Your task to perform on an android device: Add razer blade to the cart on walmart.com, then select checkout. Image 0: 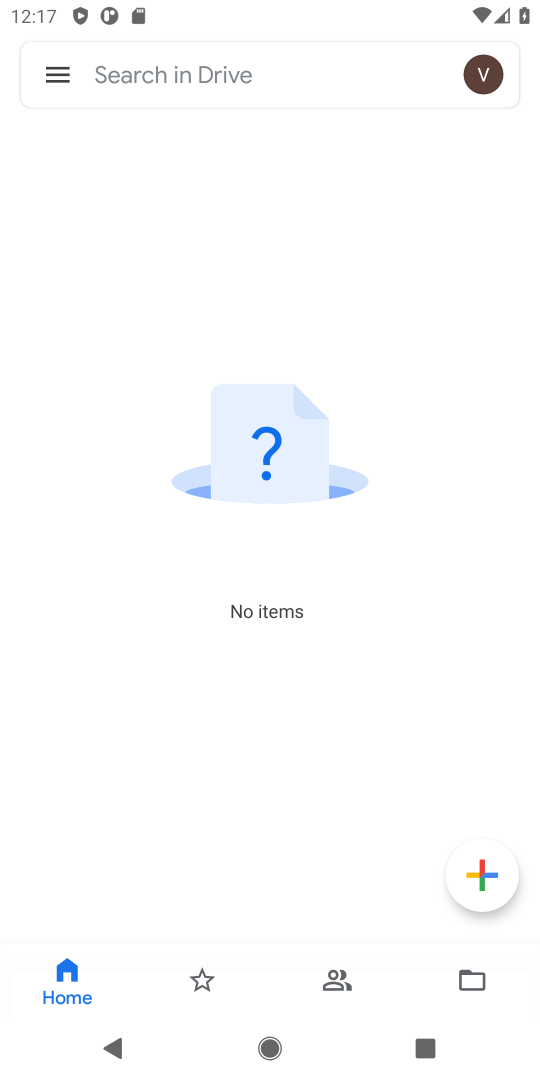
Step 0: press home button
Your task to perform on an android device: Add razer blade to the cart on walmart.com, then select checkout. Image 1: 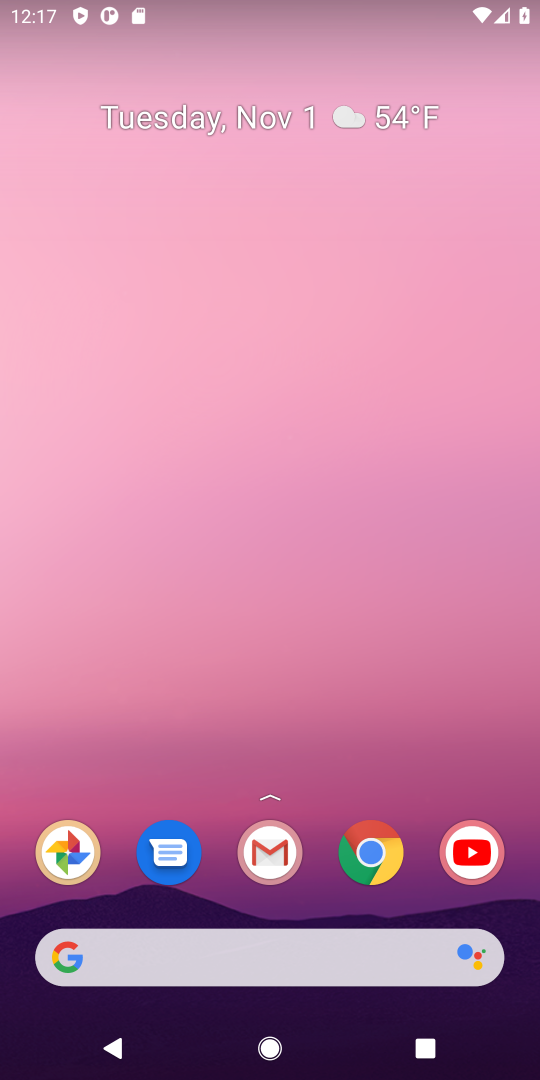
Step 1: click (369, 865)
Your task to perform on an android device: Add razer blade to the cart on walmart.com, then select checkout. Image 2: 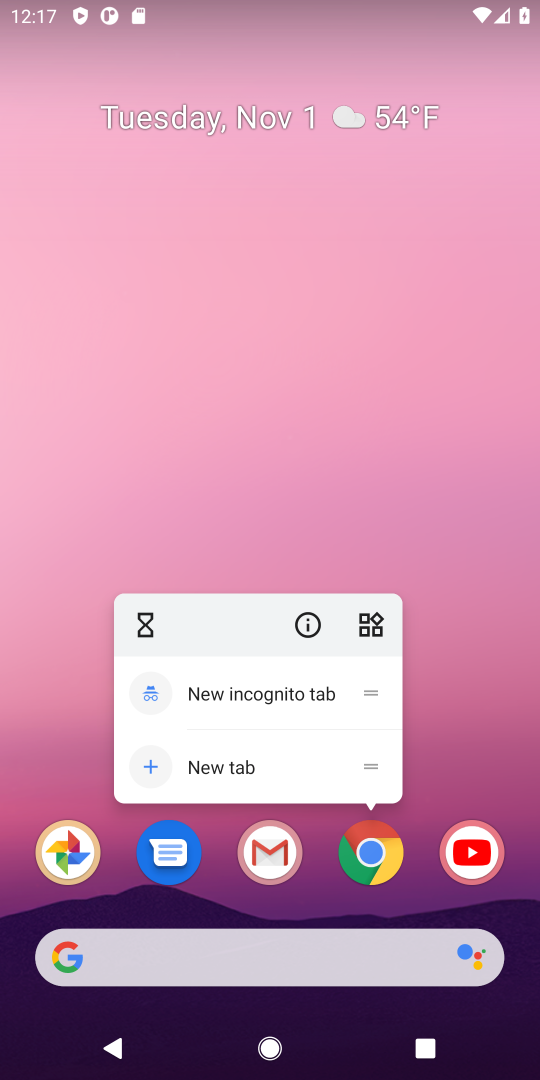
Step 2: click (386, 870)
Your task to perform on an android device: Add razer blade to the cart on walmart.com, then select checkout. Image 3: 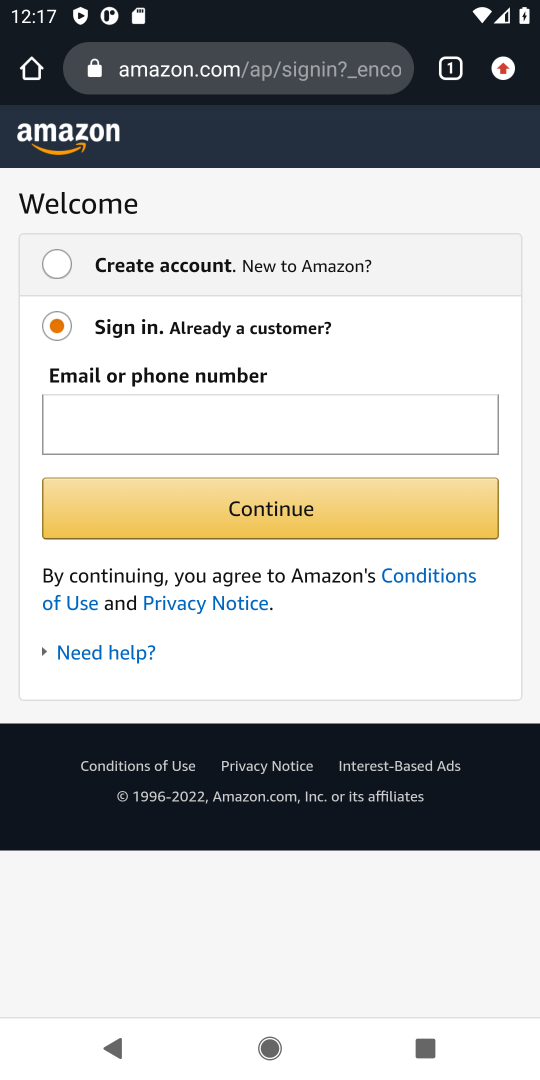
Step 3: click (193, 73)
Your task to perform on an android device: Add razer blade to the cart on walmart.com, then select checkout. Image 4: 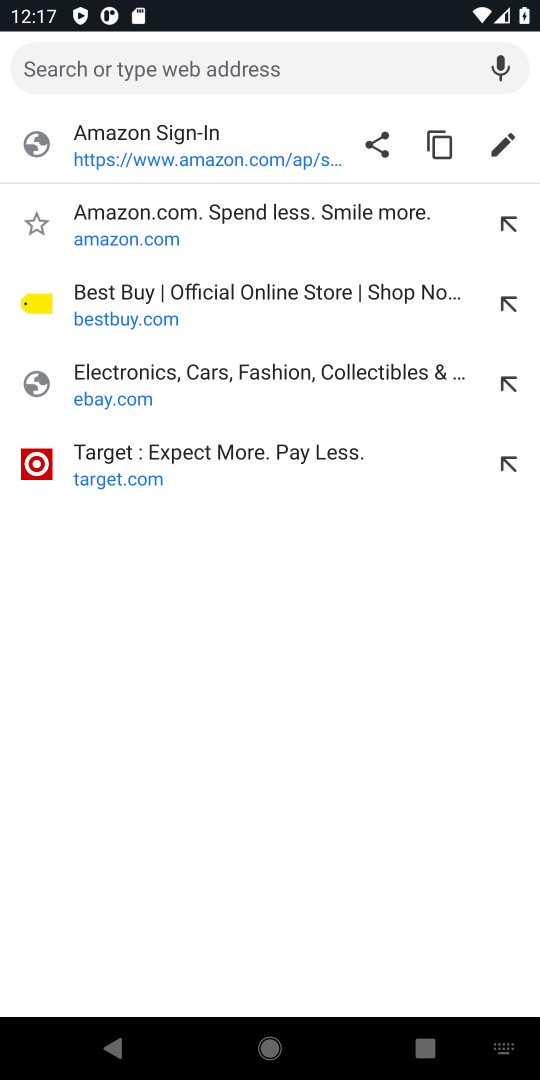
Step 4: type "walmart.com"
Your task to perform on an android device: Add razer blade to the cart on walmart.com, then select checkout. Image 5: 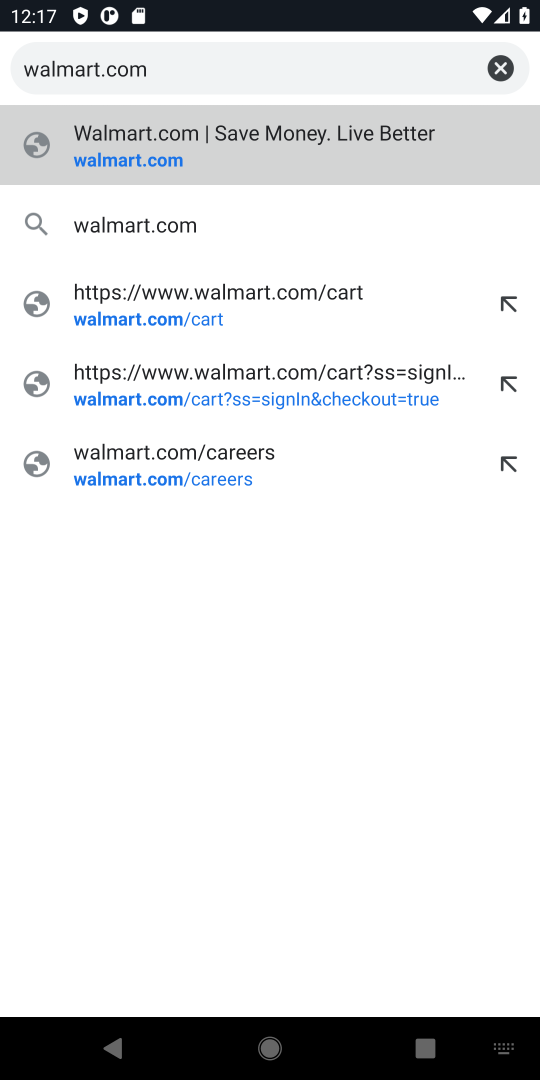
Step 5: type ""
Your task to perform on an android device: Add razer blade to the cart on walmart.com, then select checkout. Image 6: 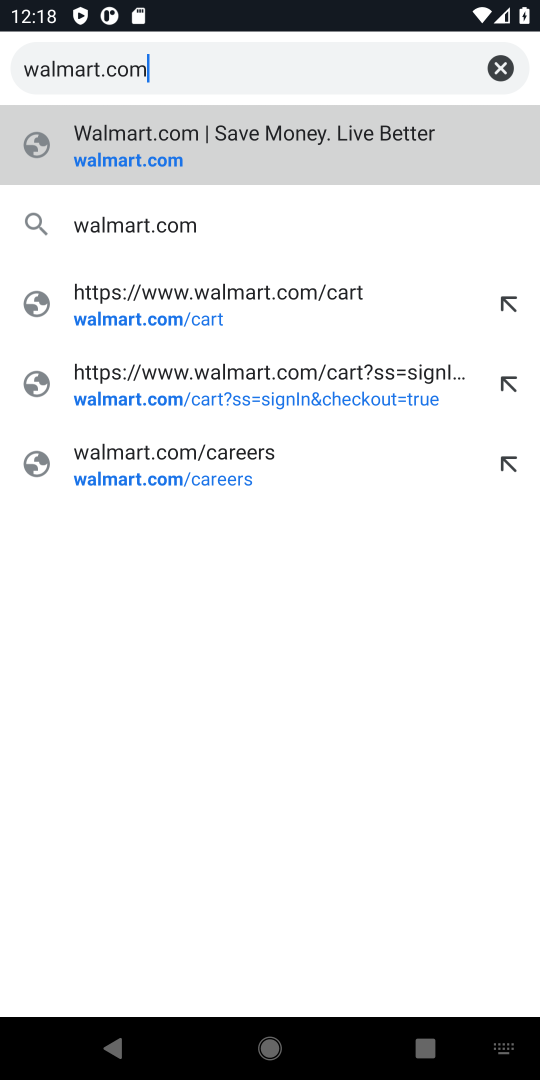
Step 6: press enter
Your task to perform on an android device: Add razer blade to the cart on walmart.com, then select checkout. Image 7: 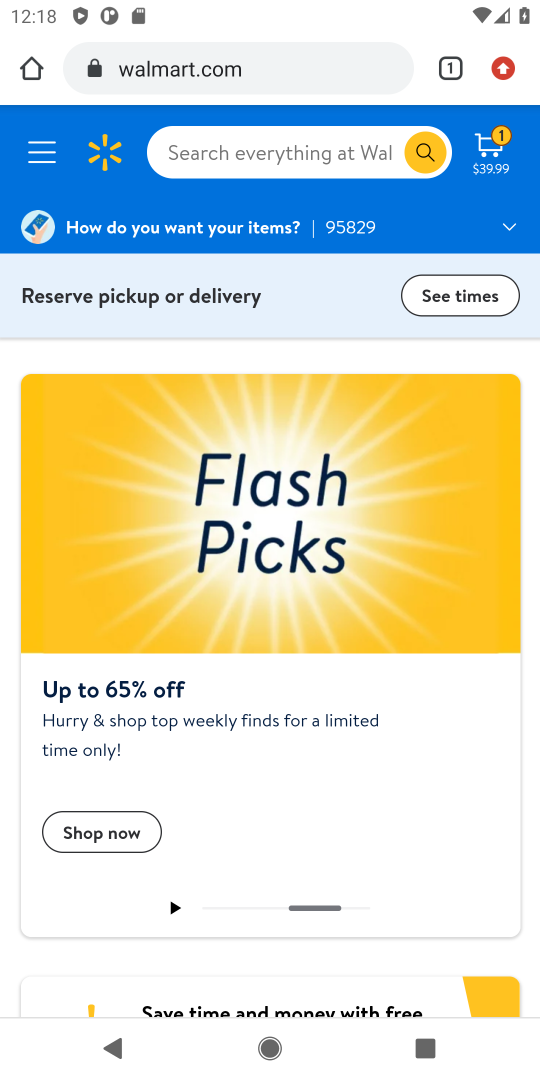
Step 7: click (264, 154)
Your task to perform on an android device: Add razer blade to the cart on walmart.com, then select checkout. Image 8: 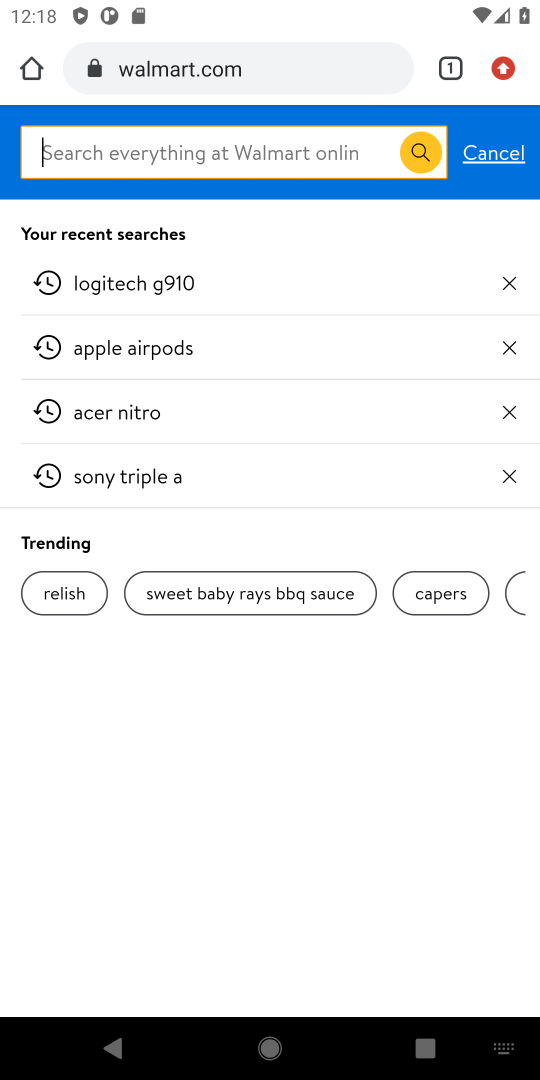
Step 8: type "razer blade"
Your task to perform on an android device: Add razer blade to the cart on walmart.com, then select checkout. Image 9: 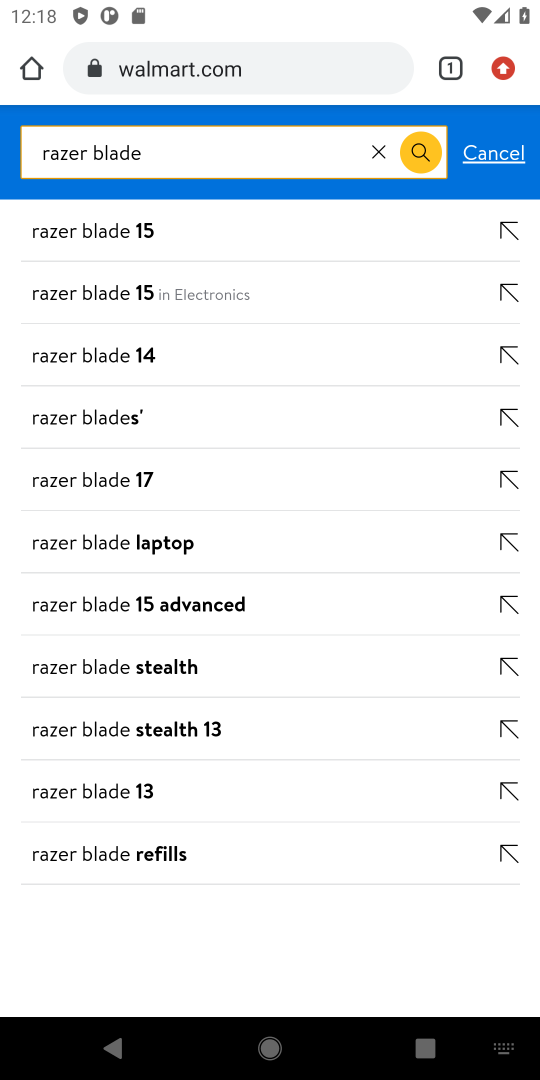
Step 9: press enter
Your task to perform on an android device: Add razer blade to the cart on walmart.com, then select checkout. Image 10: 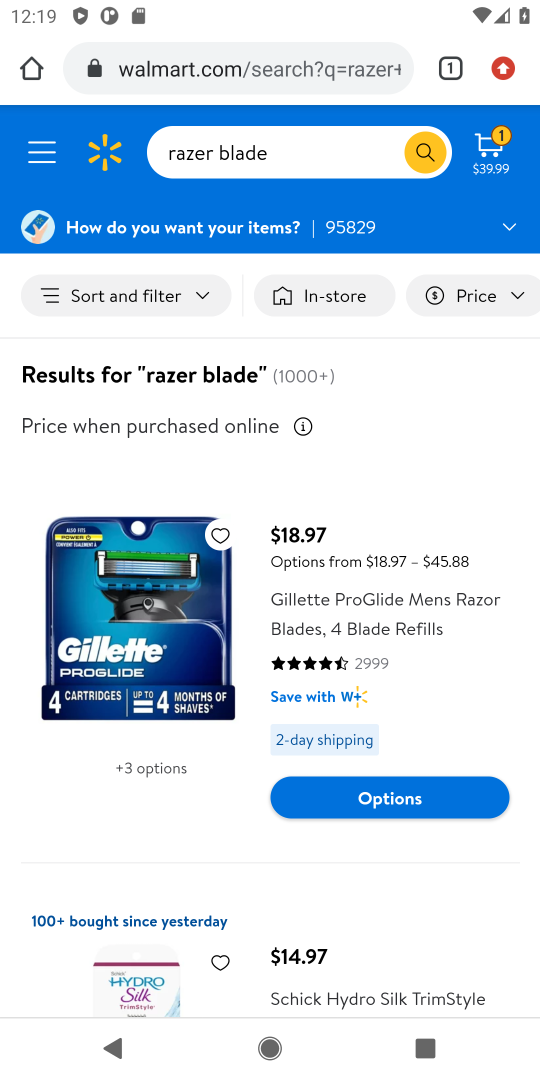
Step 10: click (455, 804)
Your task to perform on an android device: Add razer blade to the cart on walmart.com, then select checkout. Image 11: 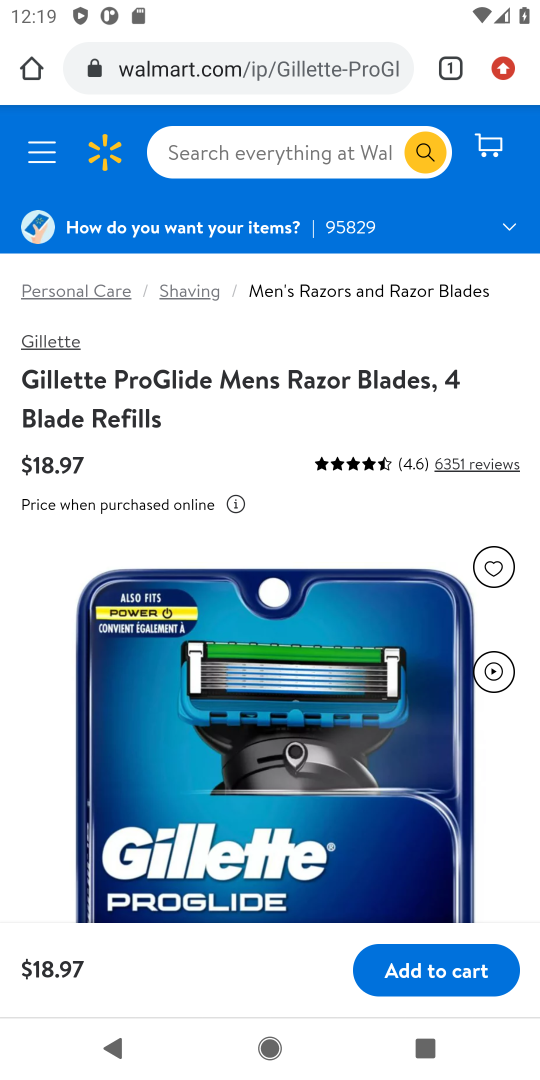
Step 11: click (405, 971)
Your task to perform on an android device: Add razer blade to the cart on walmart.com, then select checkout. Image 12: 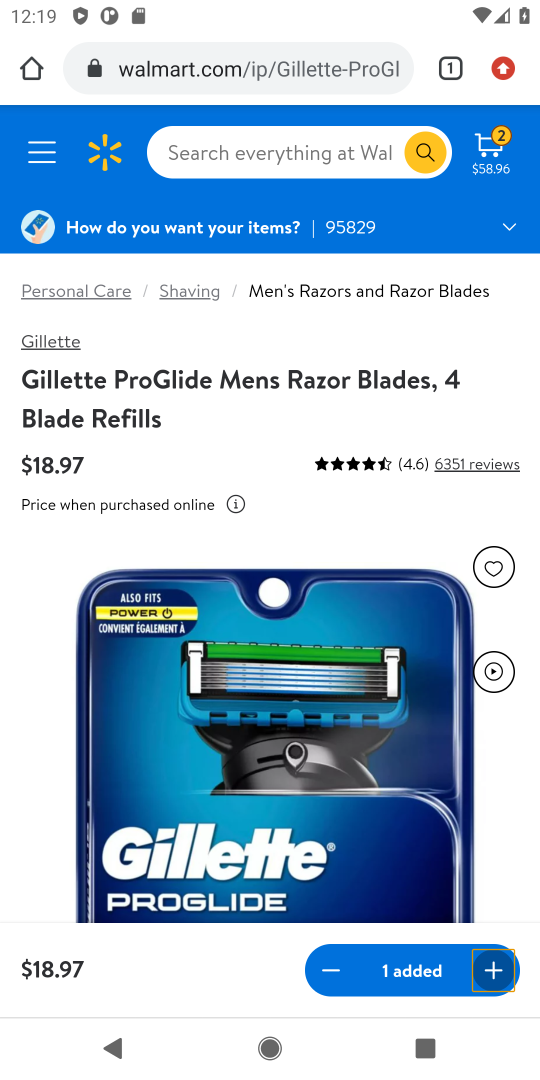
Step 12: click (483, 148)
Your task to perform on an android device: Add razer blade to the cart on walmart.com, then select checkout. Image 13: 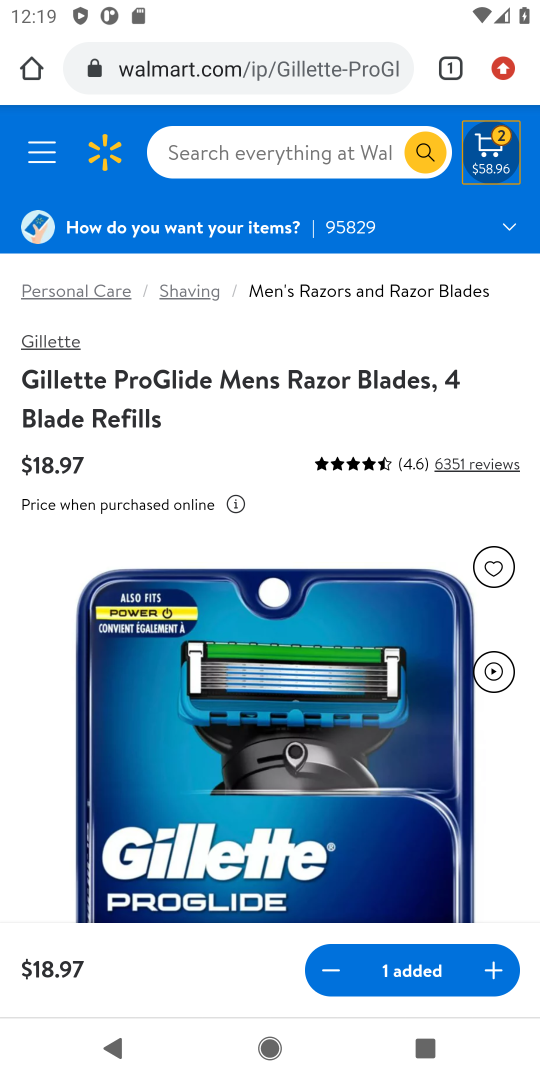
Step 13: click (485, 153)
Your task to perform on an android device: Add razer blade to the cart on walmart.com, then select checkout. Image 14: 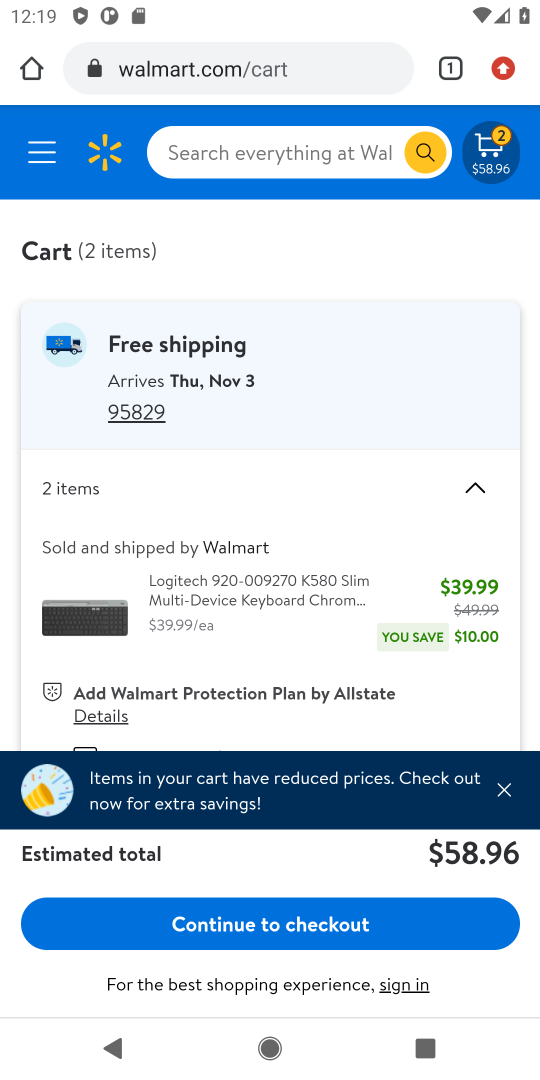
Step 14: click (260, 928)
Your task to perform on an android device: Add razer blade to the cart on walmart.com, then select checkout. Image 15: 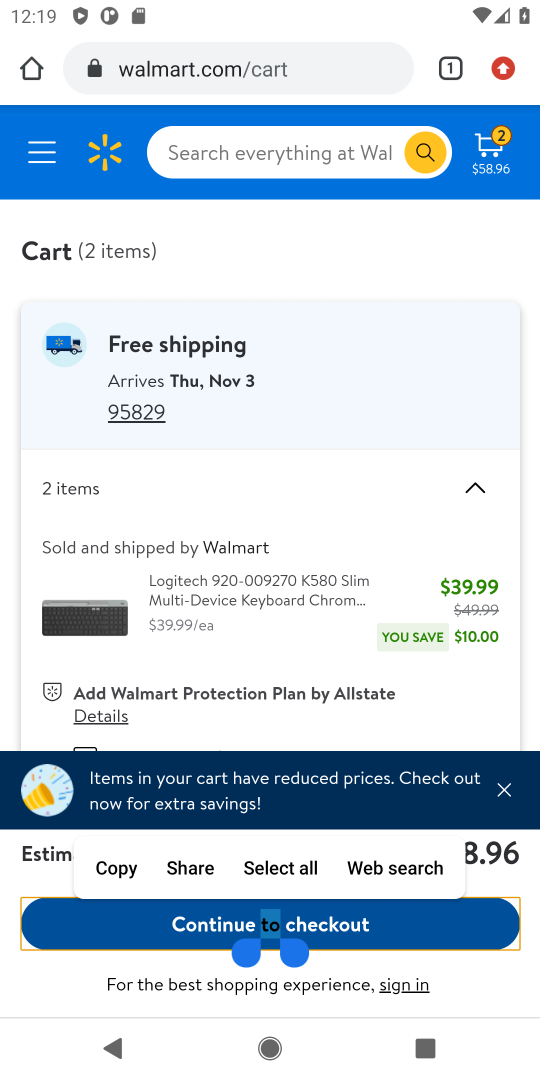
Step 15: click (363, 935)
Your task to perform on an android device: Add razer blade to the cart on walmart.com, then select checkout. Image 16: 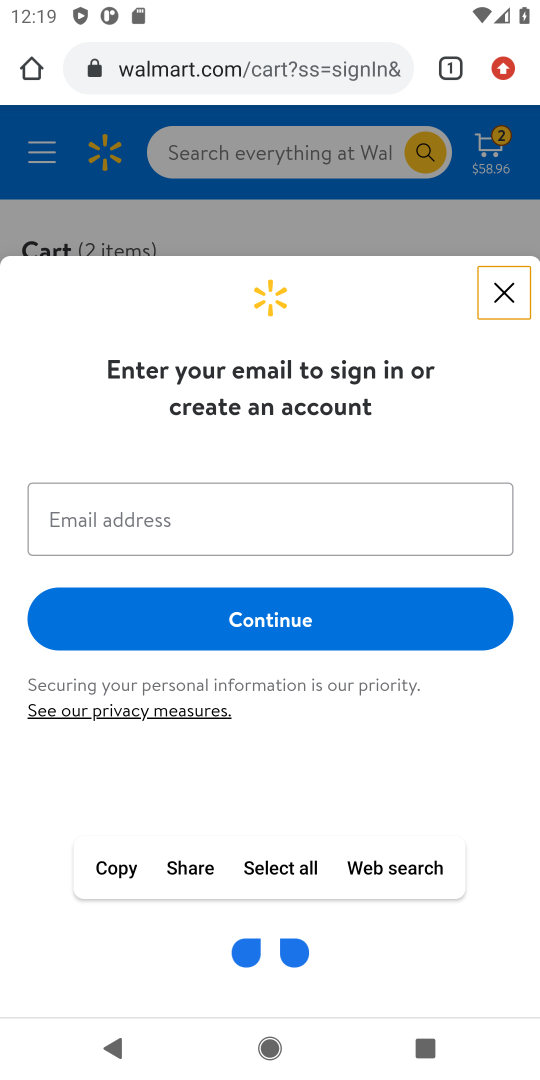
Step 16: task complete